Your task to perform on an android device: turn off priority inbox in the gmail app Image 0: 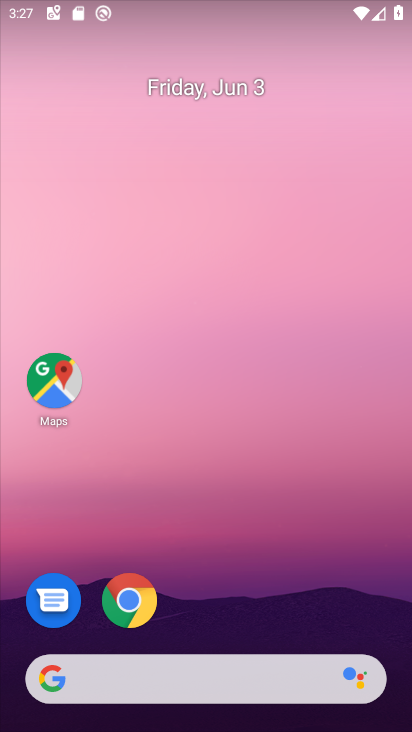
Step 0: drag from (297, 516) to (324, 79)
Your task to perform on an android device: turn off priority inbox in the gmail app Image 1: 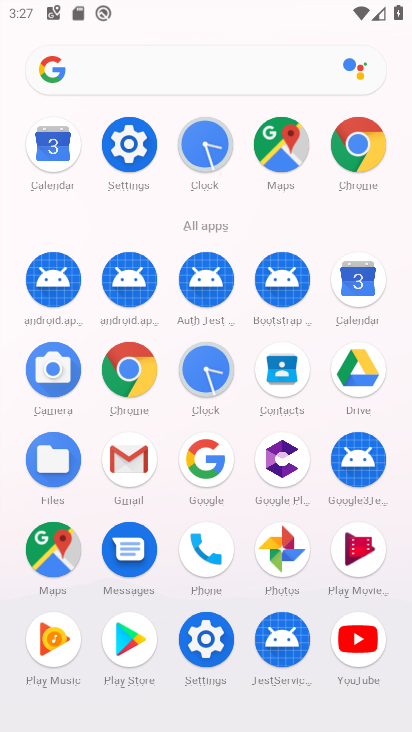
Step 1: click (129, 462)
Your task to perform on an android device: turn off priority inbox in the gmail app Image 2: 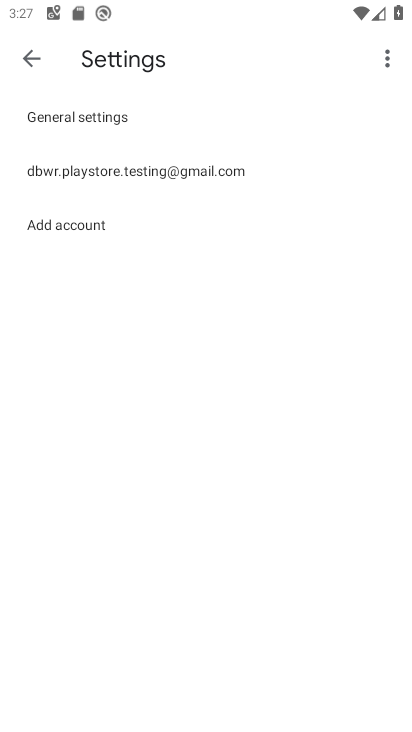
Step 2: click (44, 56)
Your task to perform on an android device: turn off priority inbox in the gmail app Image 3: 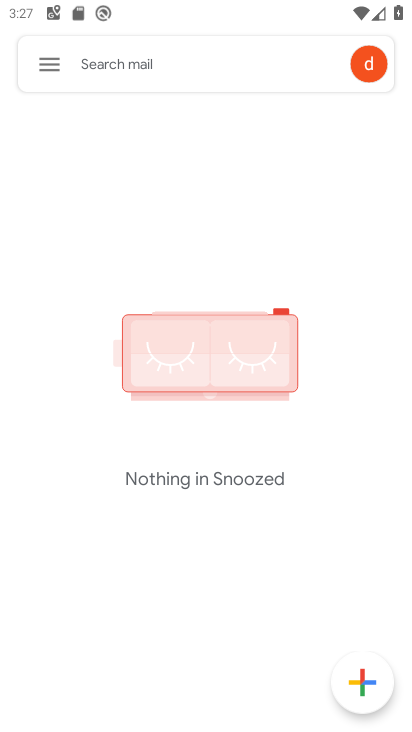
Step 3: click (59, 56)
Your task to perform on an android device: turn off priority inbox in the gmail app Image 4: 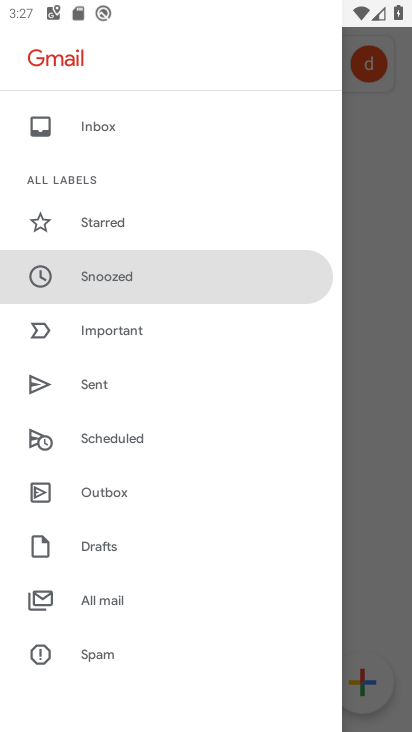
Step 4: drag from (122, 612) to (160, 368)
Your task to perform on an android device: turn off priority inbox in the gmail app Image 5: 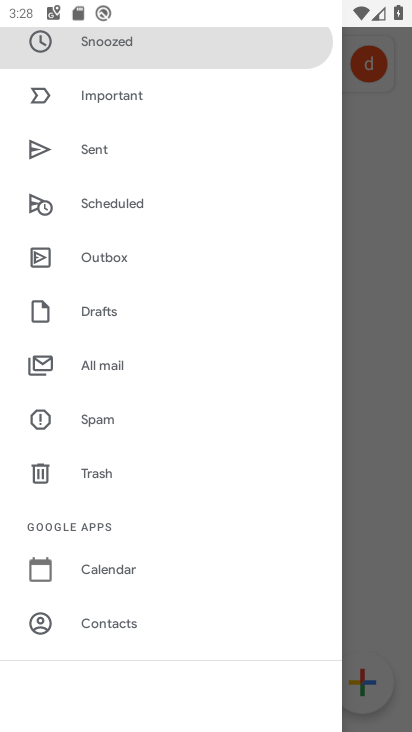
Step 5: drag from (168, 501) to (253, 216)
Your task to perform on an android device: turn off priority inbox in the gmail app Image 6: 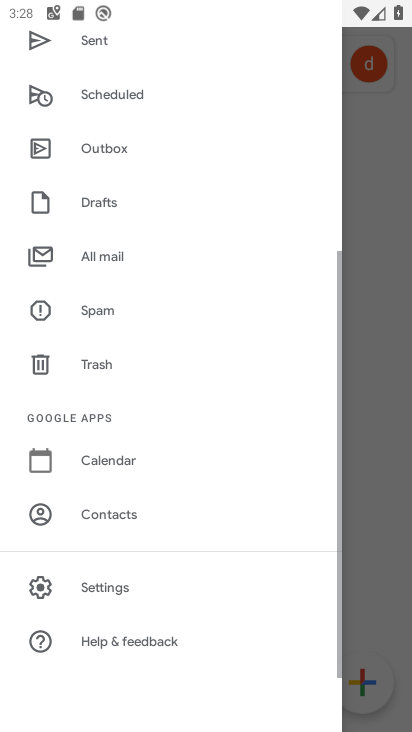
Step 6: click (102, 573)
Your task to perform on an android device: turn off priority inbox in the gmail app Image 7: 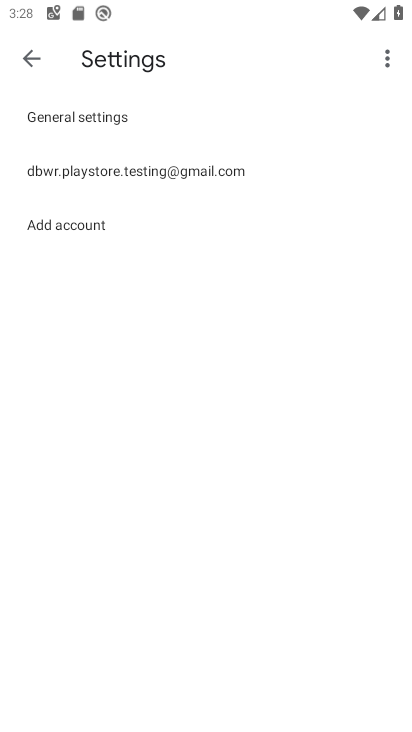
Step 7: click (77, 195)
Your task to perform on an android device: turn off priority inbox in the gmail app Image 8: 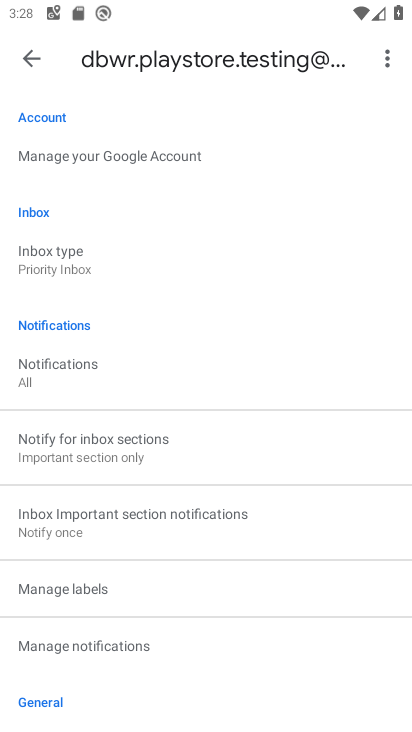
Step 8: click (79, 269)
Your task to perform on an android device: turn off priority inbox in the gmail app Image 9: 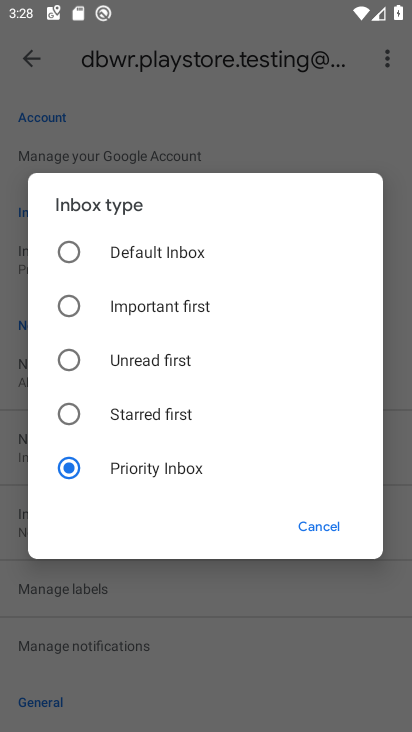
Step 9: task complete